Your task to perform on an android device: Open calendar and show me the first week of next month Image 0: 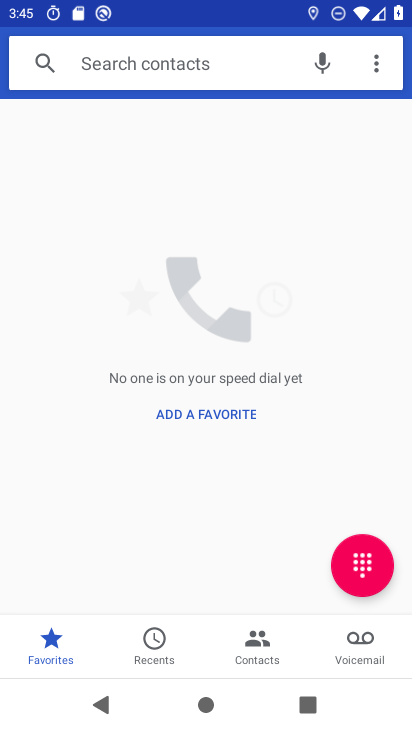
Step 0: press back button
Your task to perform on an android device: Open calendar and show me the first week of next month Image 1: 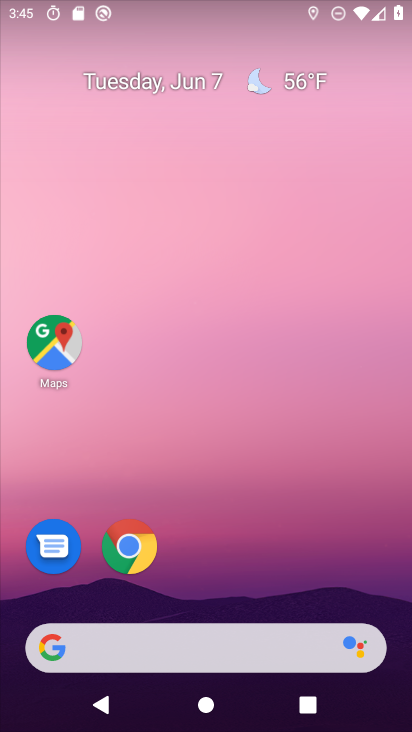
Step 1: drag from (324, 581) to (222, 40)
Your task to perform on an android device: Open calendar and show me the first week of next month Image 2: 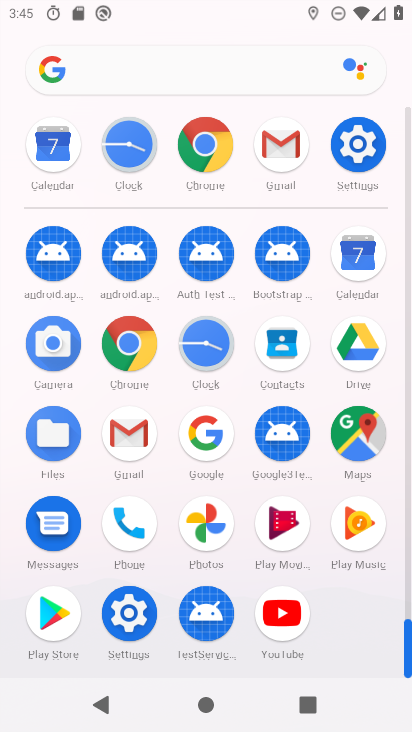
Step 2: click (359, 248)
Your task to perform on an android device: Open calendar and show me the first week of next month Image 3: 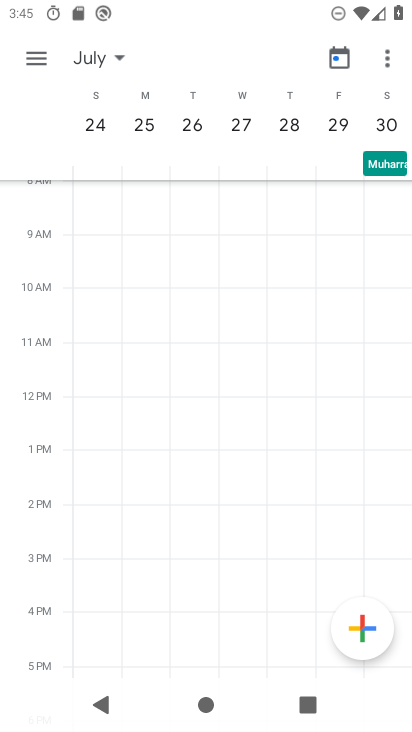
Step 3: click (82, 57)
Your task to perform on an android device: Open calendar and show me the first week of next month Image 4: 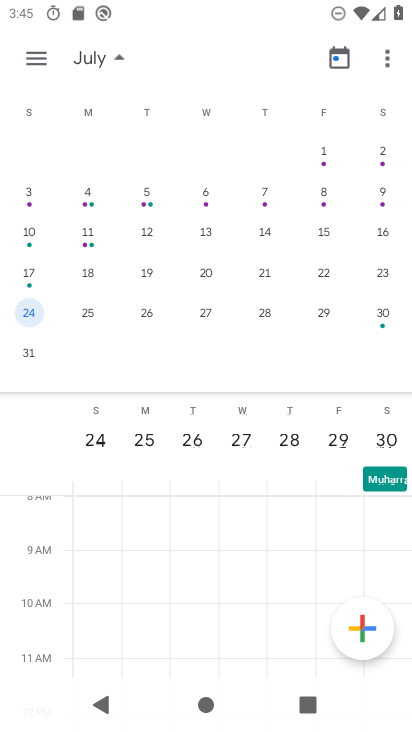
Step 4: drag from (364, 233) to (1, 227)
Your task to perform on an android device: Open calendar and show me the first week of next month Image 5: 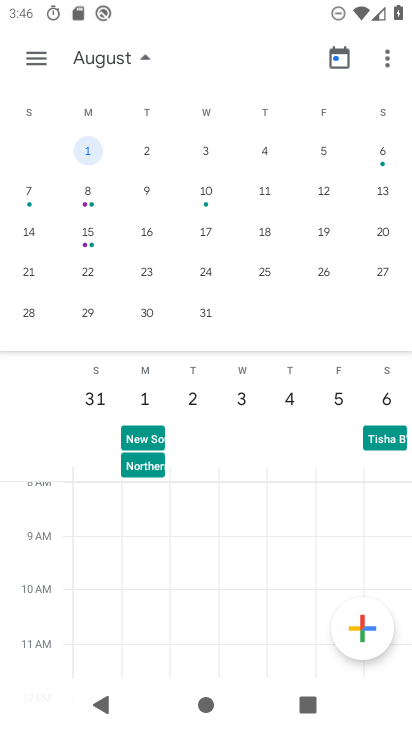
Step 5: click (47, 55)
Your task to perform on an android device: Open calendar and show me the first week of next month Image 6: 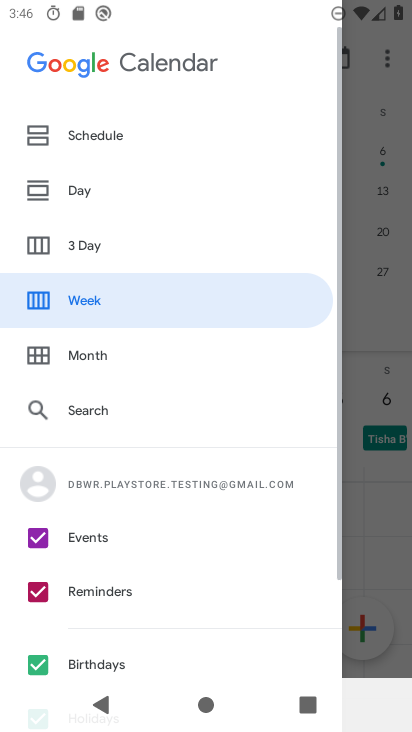
Step 6: click (122, 180)
Your task to perform on an android device: Open calendar and show me the first week of next month Image 7: 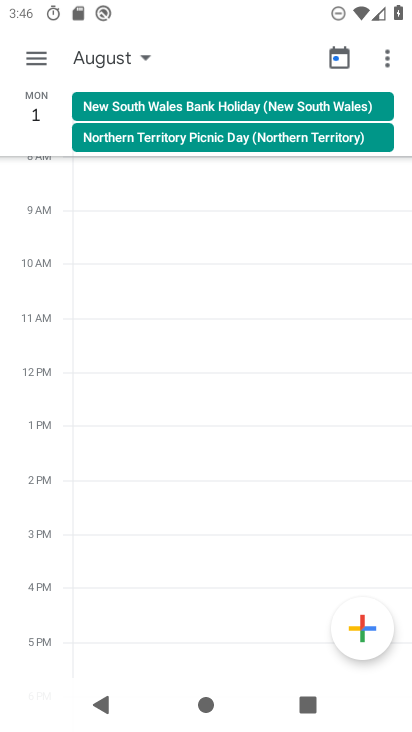
Step 7: click (34, 54)
Your task to perform on an android device: Open calendar and show me the first week of next month Image 8: 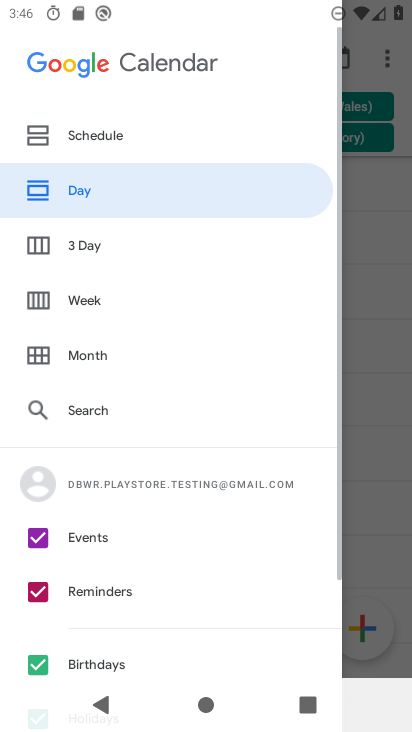
Step 8: click (87, 299)
Your task to perform on an android device: Open calendar and show me the first week of next month Image 9: 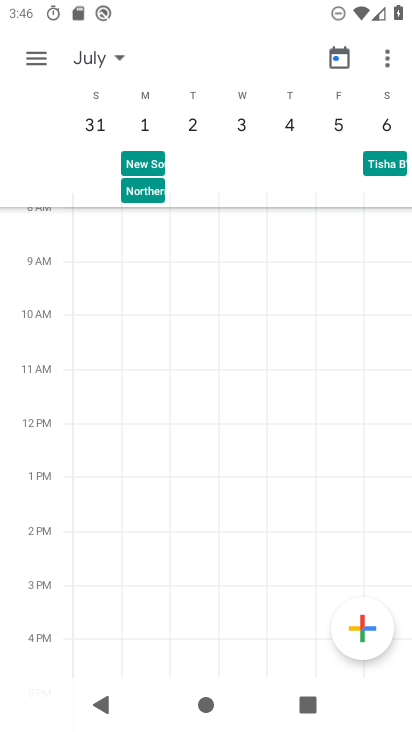
Step 9: task complete